Your task to perform on an android device: Go to battery settings Image 0: 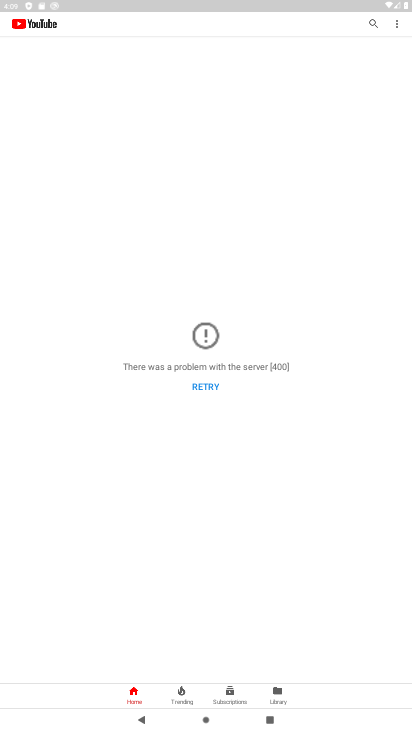
Step 0: press home button
Your task to perform on an android device: Go to battery settings Image 1: 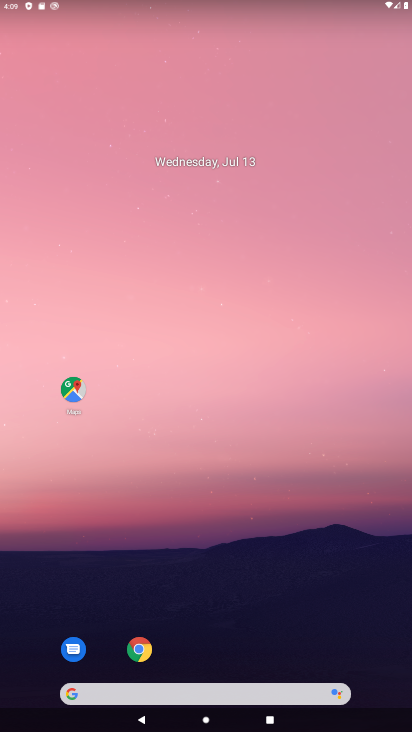
Step 1: drag from (317, 534) to (257, 28)
Your task to perform on an android device: Go to battery settings Image 2: 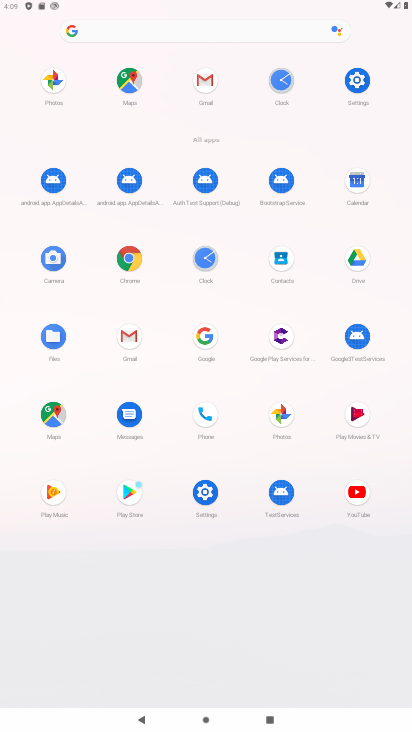
Step 2: click (354, 85)
Your task to perform on an android device: Go to battery settings Image 3: 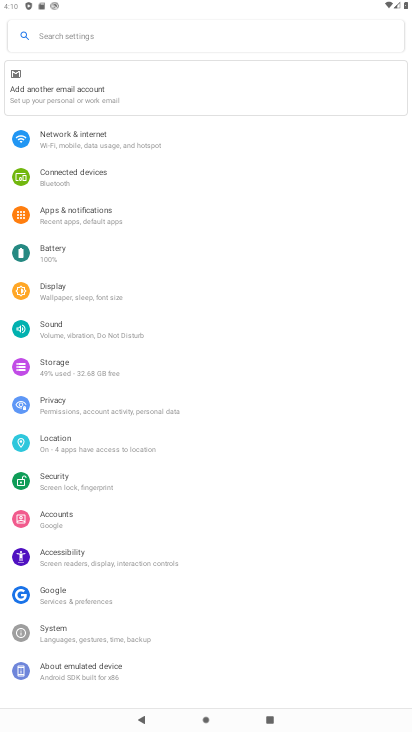
Step 3: click (67, 250)
Your task to perform on an android device: Go to battery settings Image 4: 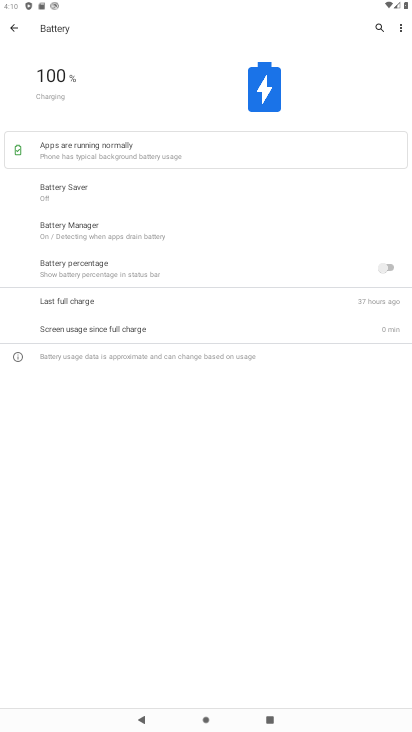
Step 4: task complete